Your task to perform on an android device: open the mobile data screen to see how much data has been used Image 0: 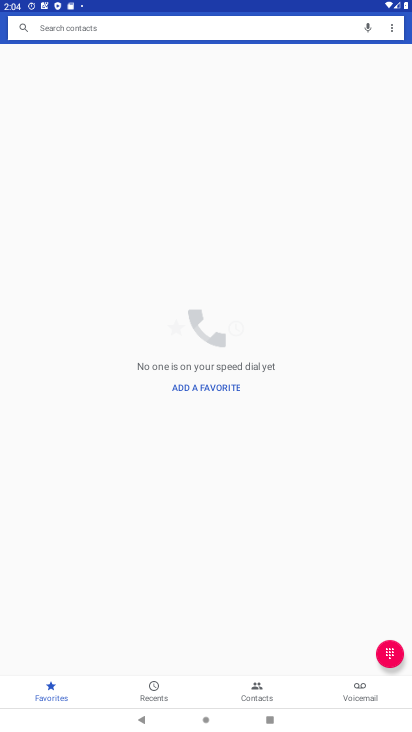
Step 0: press home button
Your task to perform on an android device: open the mobile data screen to see how much data has been used Image 1: 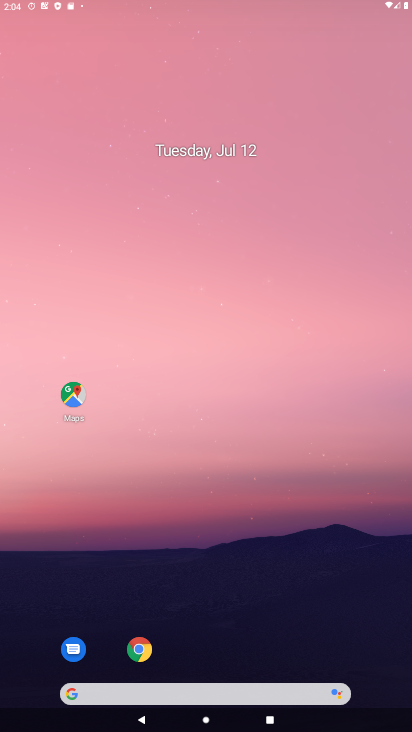
Step 1: drag from (364, 586) to (211, 54)
Your task to perform on an android device: open the mobile data screen to see how much data has been used Image 2: 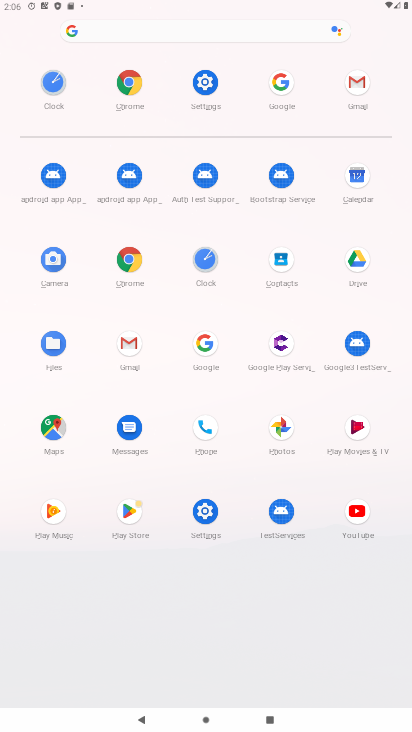
Step 2: click (211, 77)
Your task to perform on an android device: open the mobile data screen to see how much data has been used Image 3: 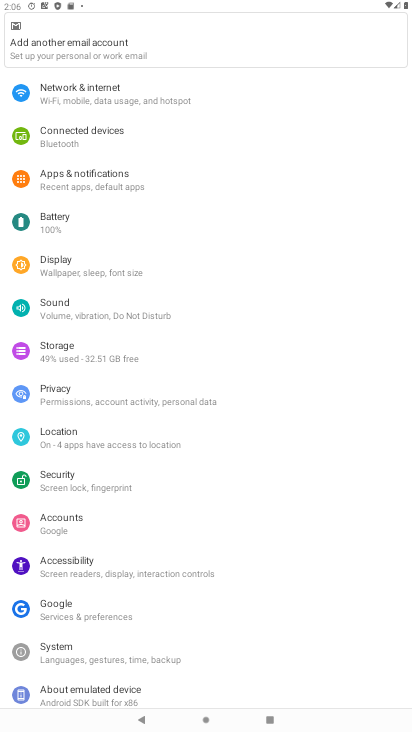
Step 3: task complete